Your task to perform on an android device: star an email in the gmail app Image 0: 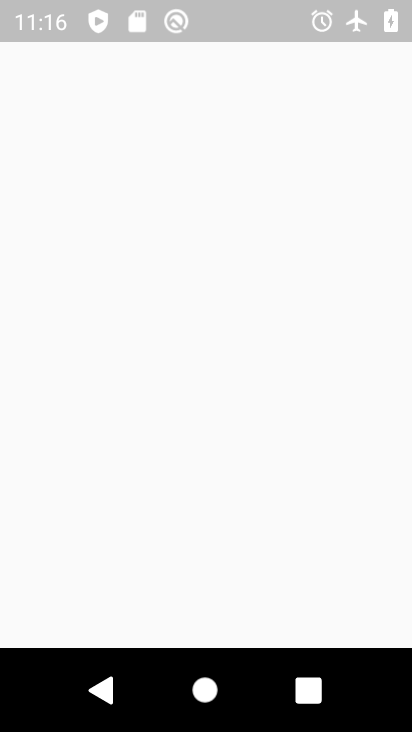
Step 0: press home button
Your task to perform on an android device: star an email in the gmail app Image 1: 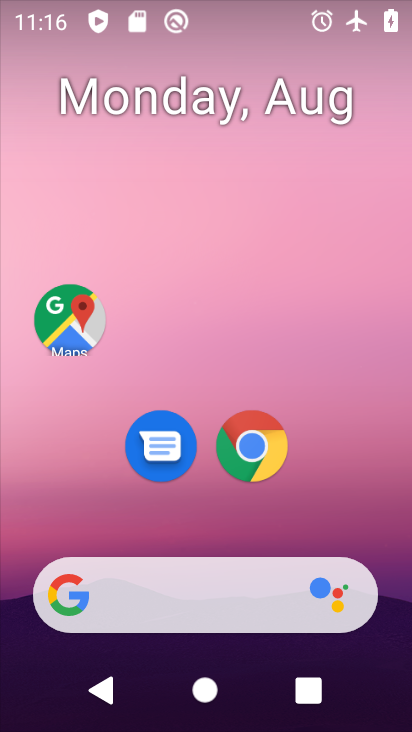
Step 1: drag from (209, 431) to (243, 20)
Your task to perform on an android device: star an email in the gmail app Image 2: 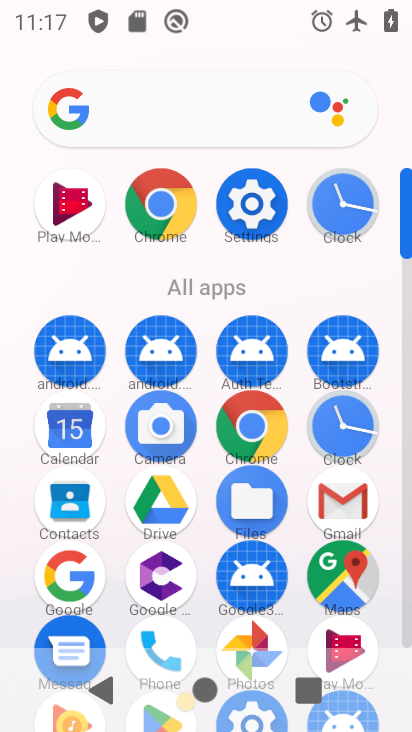
Step 2: click (346, 504)
Your task to perform on an android device: star an email in the gmail app Image 3: 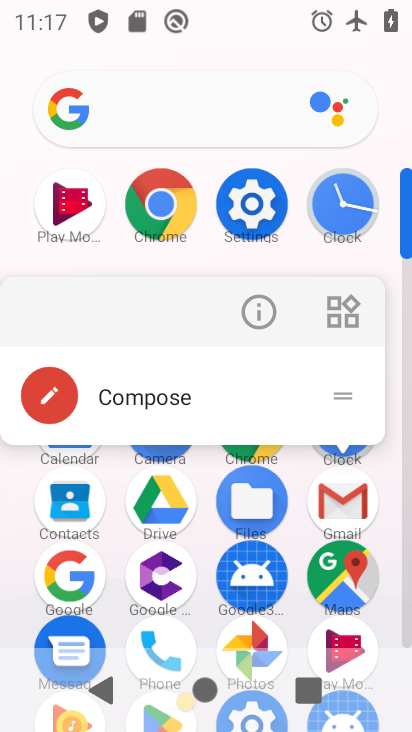
Step 3: click (337, 496)
Your task to perform on an android device: star an email in the gmail app Image 4: 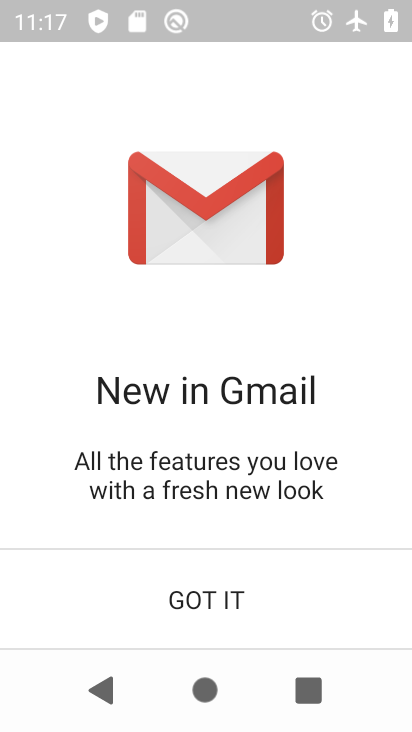
Step 4: click (235, 608)
Your task to perform on an android device: star an email in the gmail app Image 5: 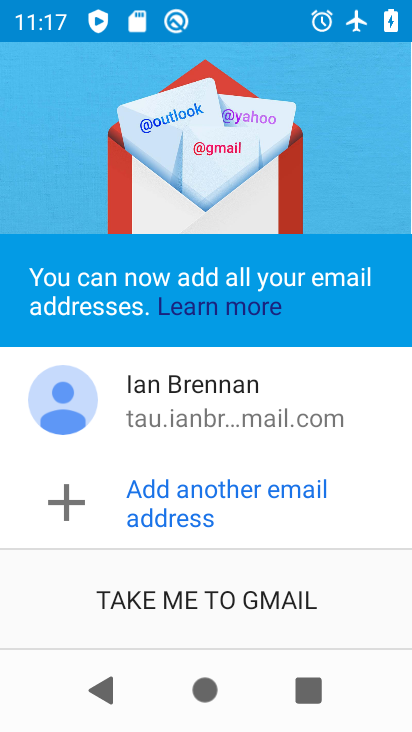
Step 5: click (219, 594)
Your task to perform on an android device: star an email in the gmail app Image 6: 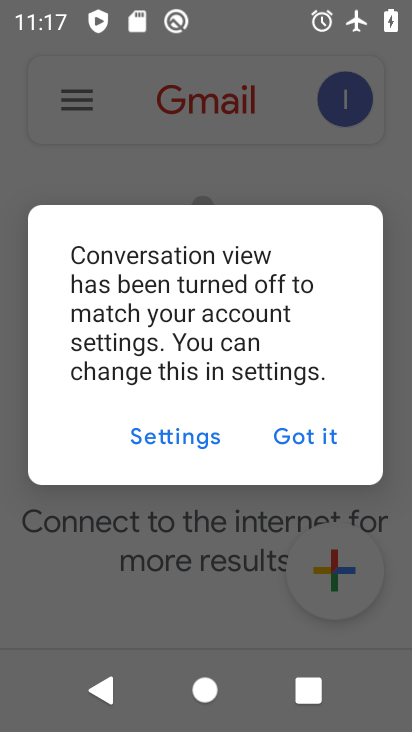
Step 6: click (287, 442)
Your task to perform on an android device: star an email in the gmail app Image 7: 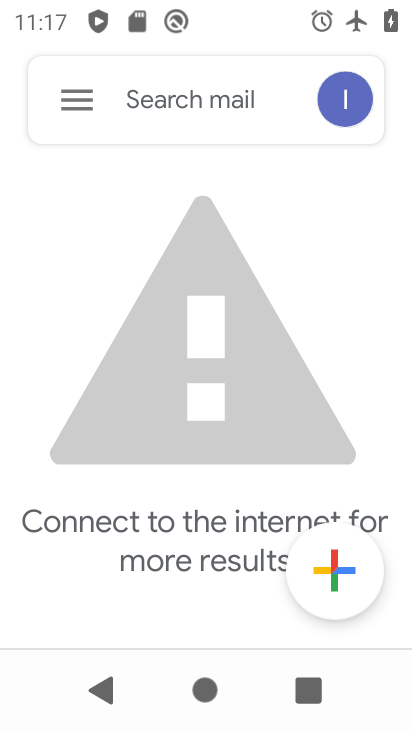
Step 7: task complete